Your task to perform on an android device: turn on airplane mode Image 0: 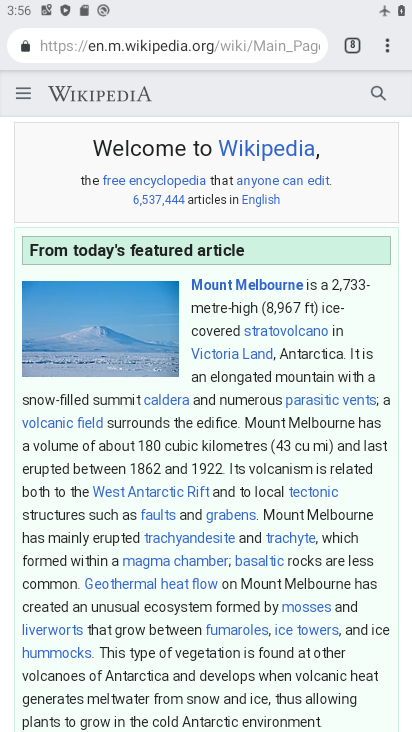
Step 0: press home button
Your task to perform on an android device: turn on airplane mode Image 1: 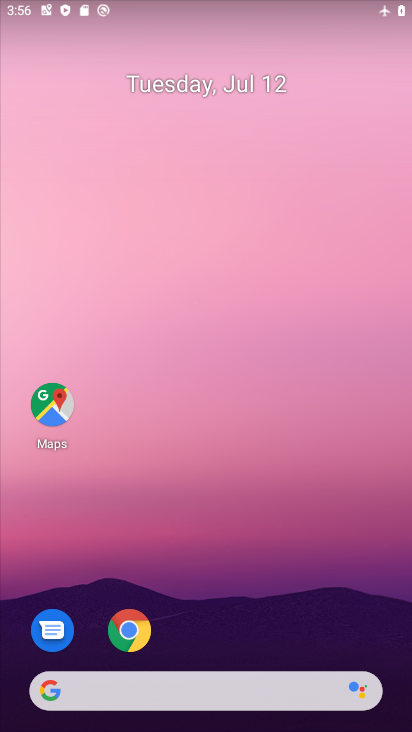
Step 1: drag from (297, 636) to (225, 12)
Your task to perform on an android device: turn on airplane mode Image 2: 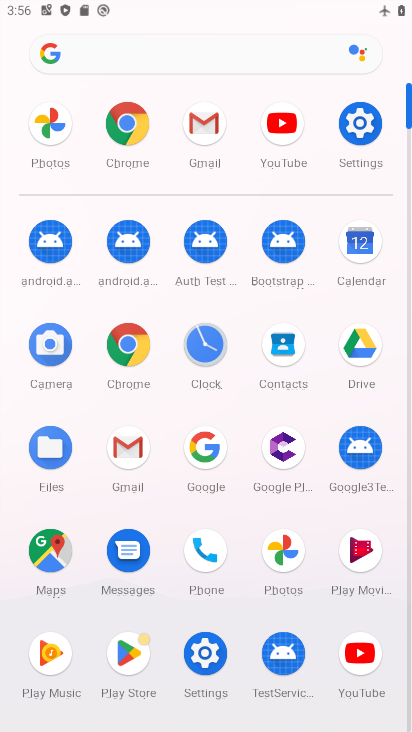
Step 2: click (354, 142)
Your task to perform on an android device: turn on airplane mode Image 3: 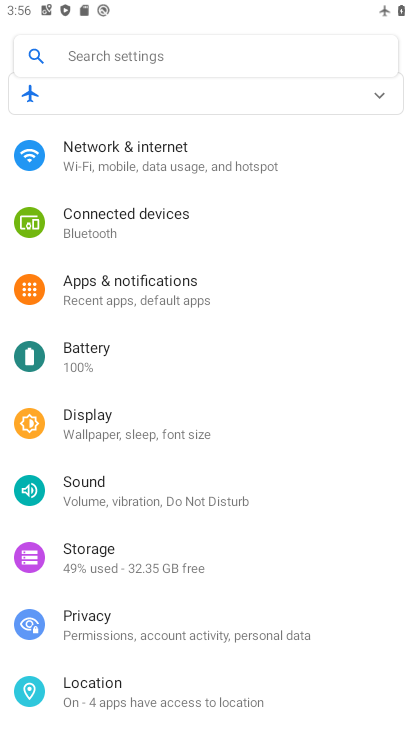
Step 3: click (134, 152)
Your task to perform on an android device: turn on airplane mode Image 4: 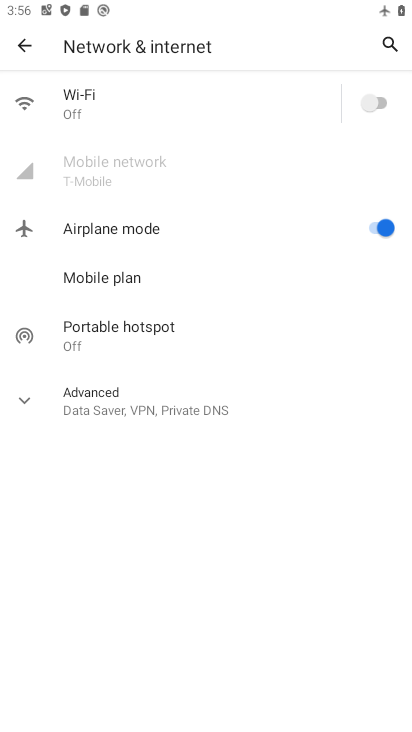
Step 4: task complete